Your task to perform on an android device: change the clock display to digital Image 0: 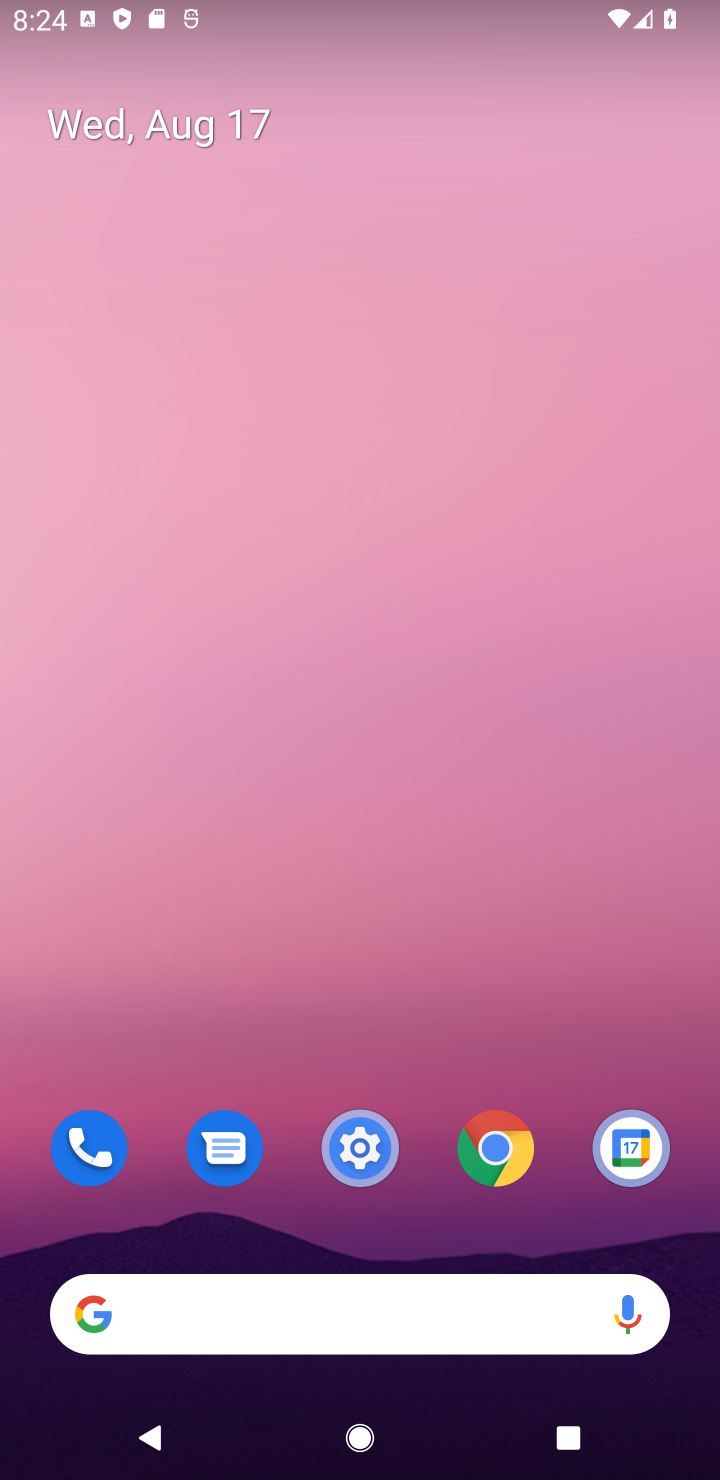
Step 0: drag from (557, 1126) to (566, 196)
Your task to perform on an android device: change the clock display to digital Image 1: 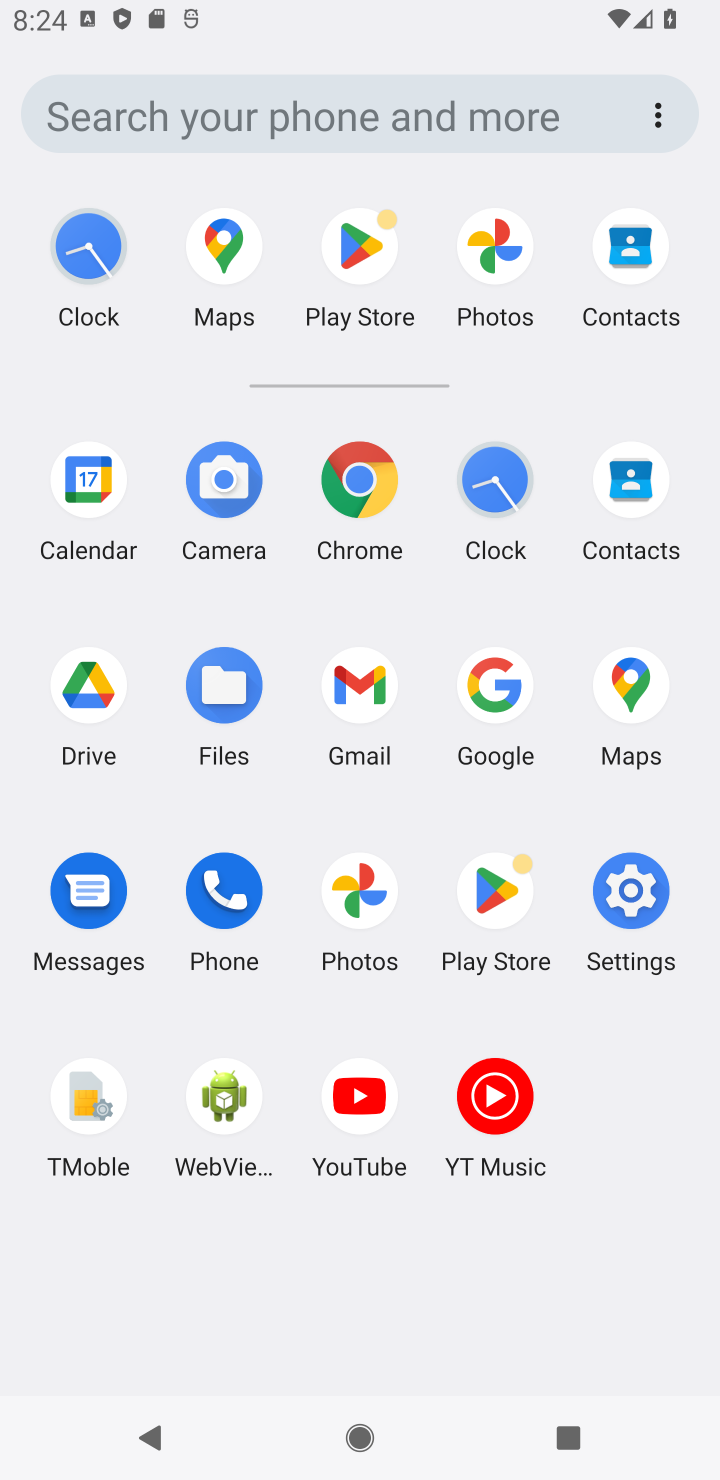
Step 1: click (501, 478)
Your task to perform on an android device: change the clock display to digital Image 2: 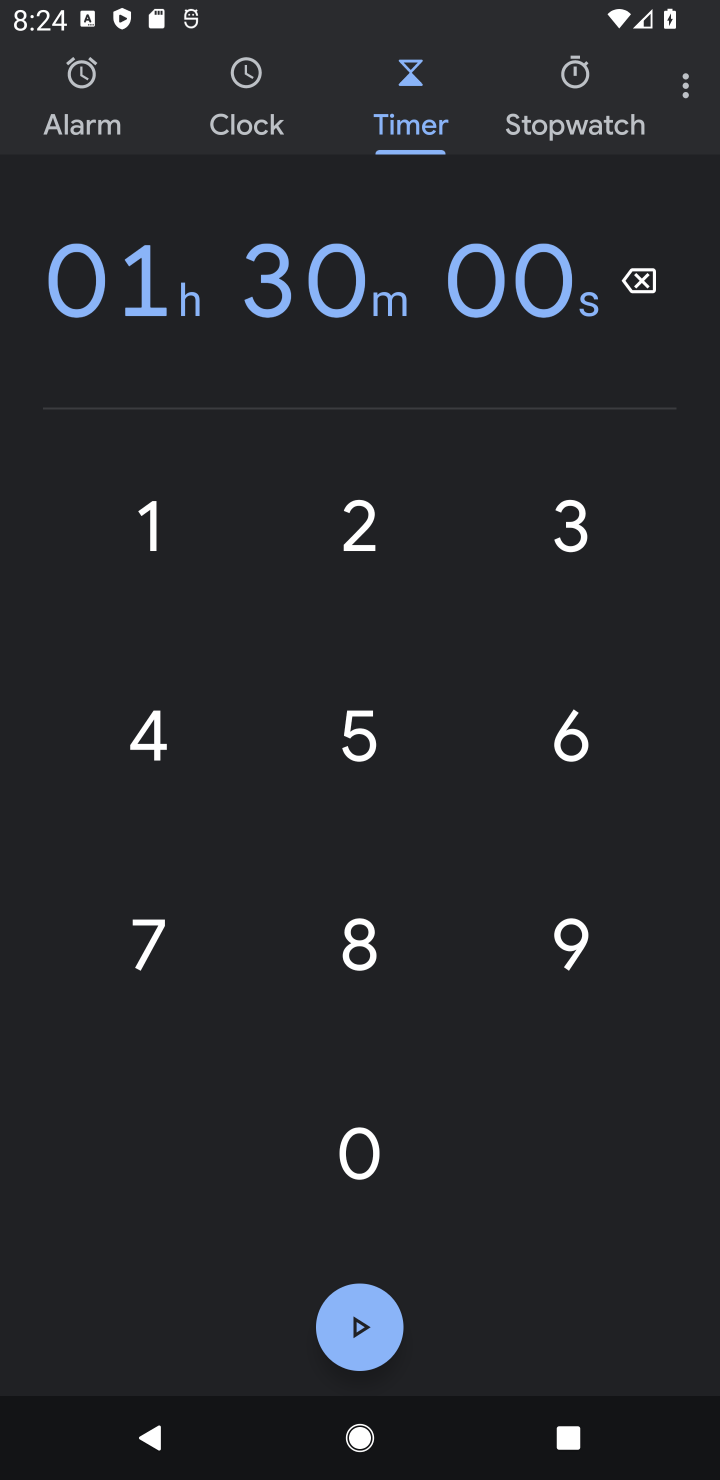
Step 2: click (681, 90)
Your task to perform on an android device: change the clock display to digital Image 3: 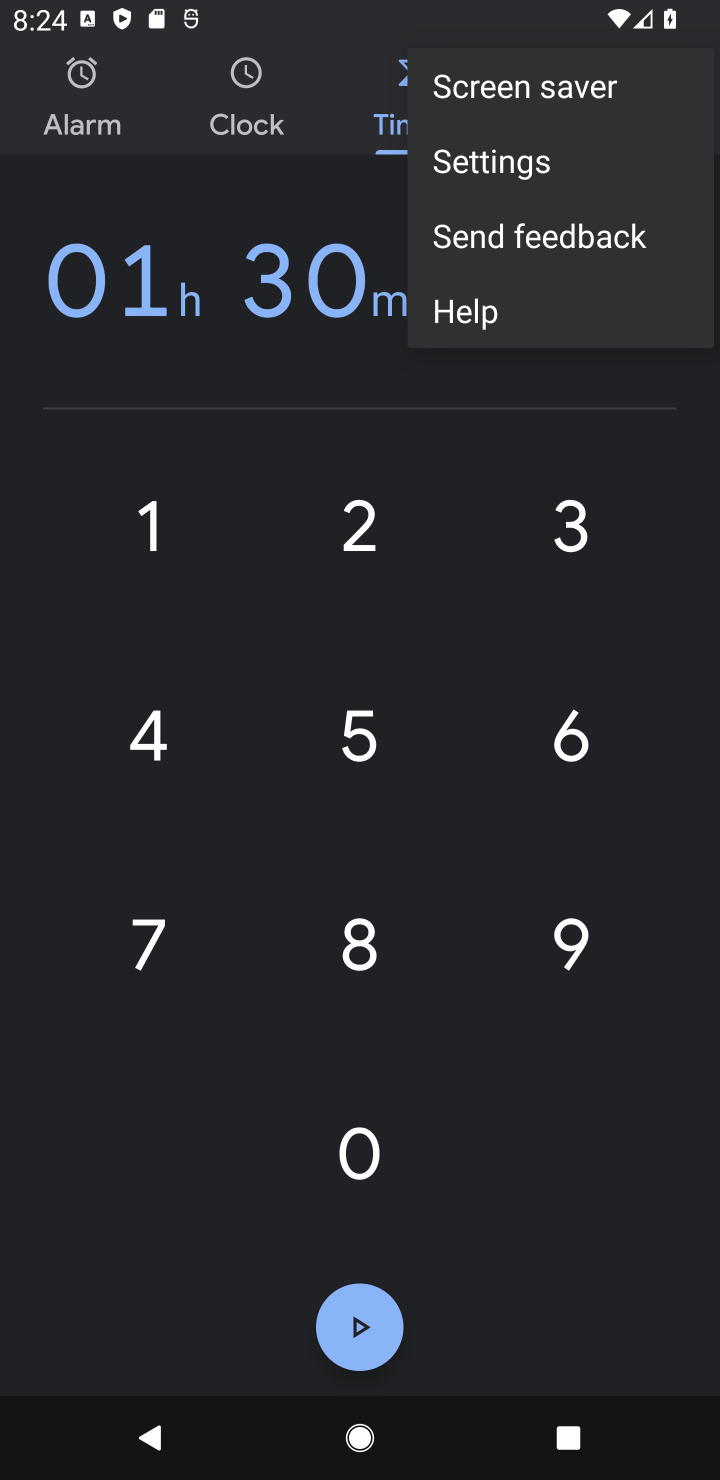
Step 3: click (488, 161)
Your task to perform on an android device: change the clock display to digital Image 4: 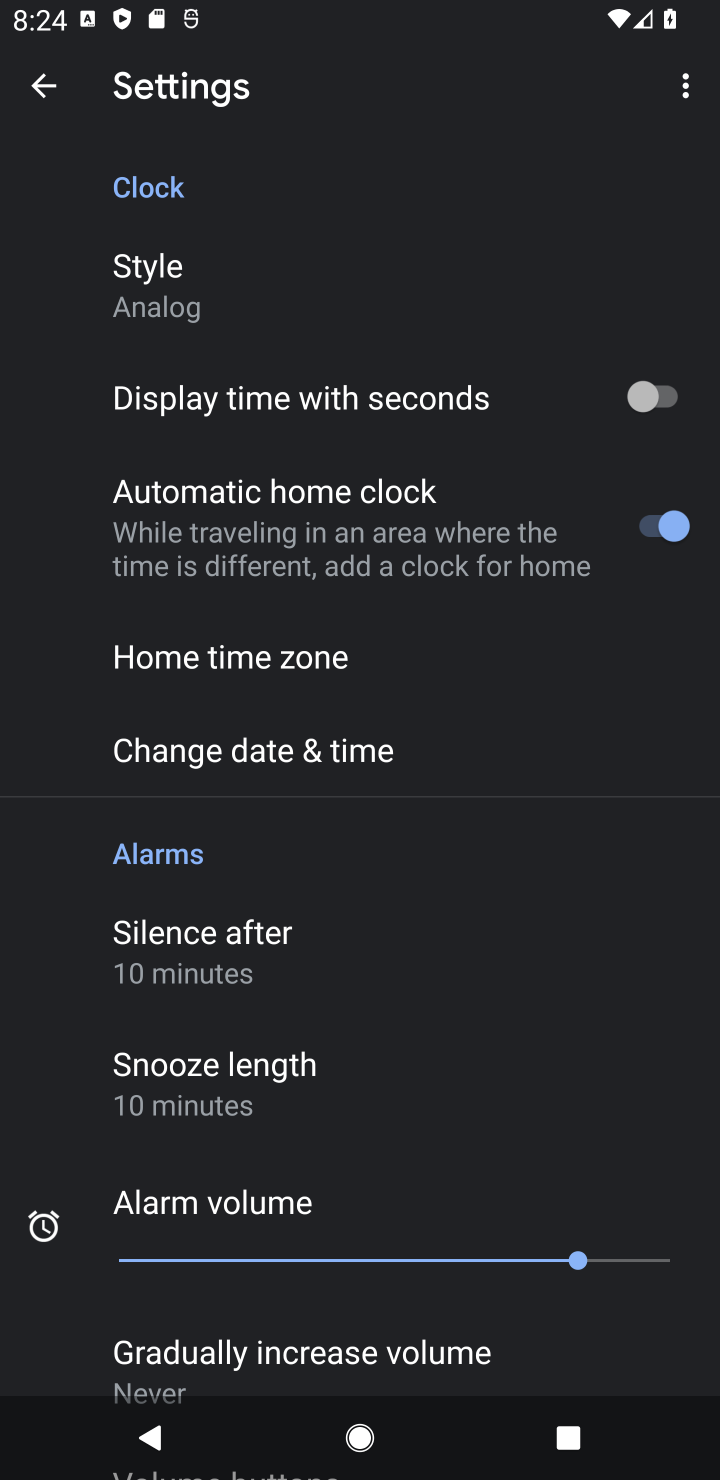
Step 4: click (150, 284)
Your task to perform on an android device: change the clock display to digital Image 5: 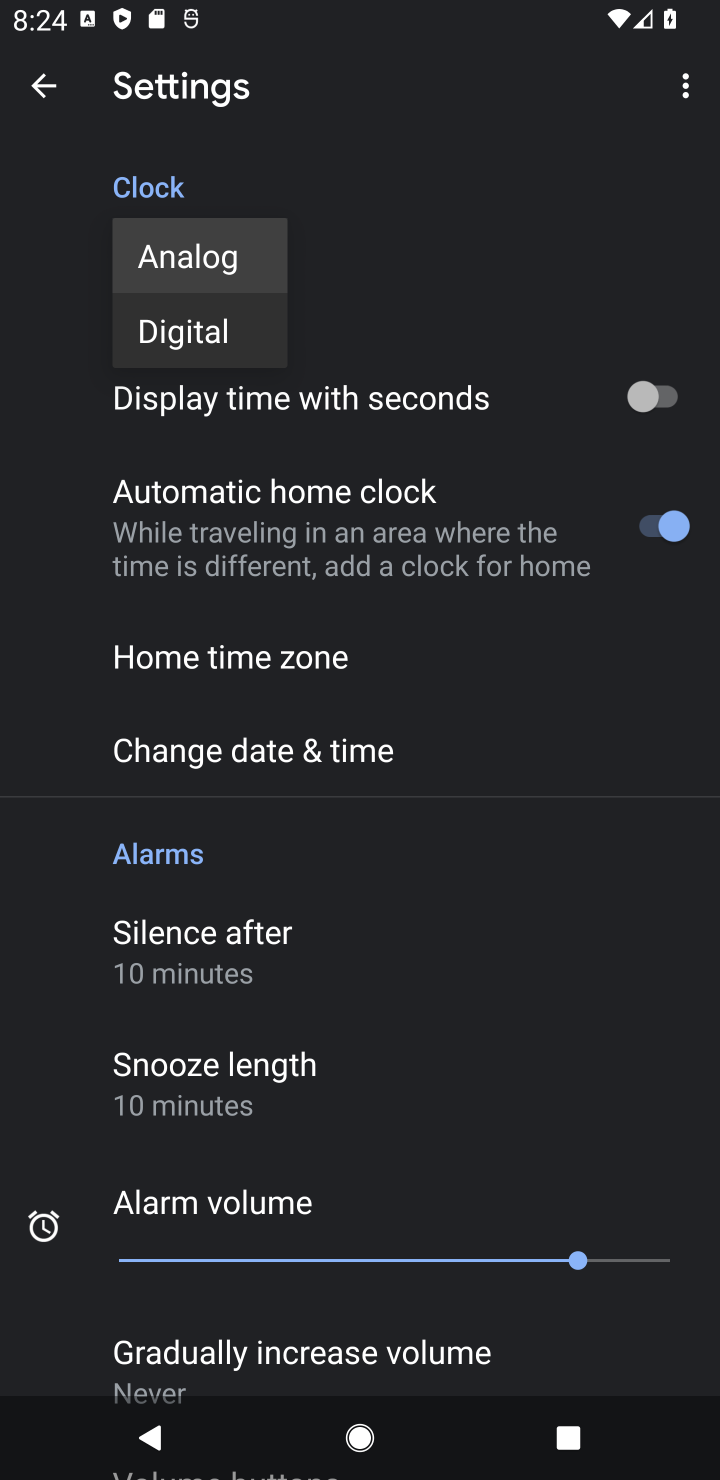
Step 5: click (184, 327)
Your task to perform on an android device: change the clock display to digital Image 6: 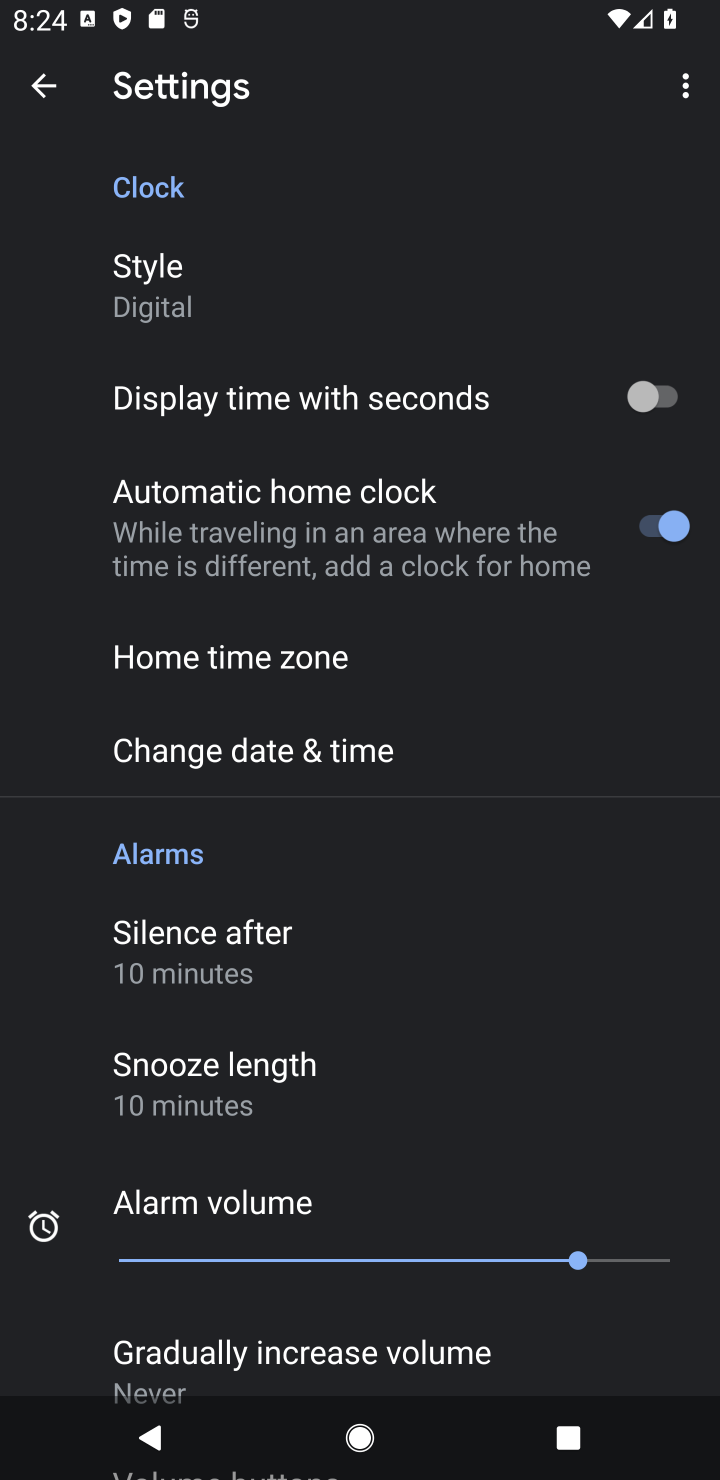
Step 6: task complete